Your task to perform on an android device: Open ESPN.com Image 0: 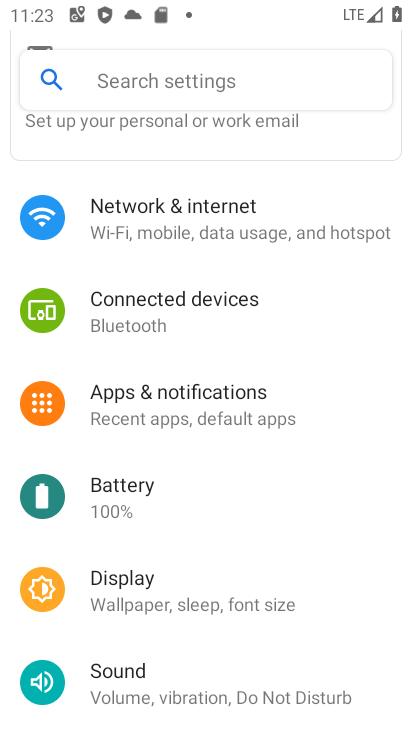
Step 0: press home button
Your task to perform on an android device: Open ESPN.com Image 1: 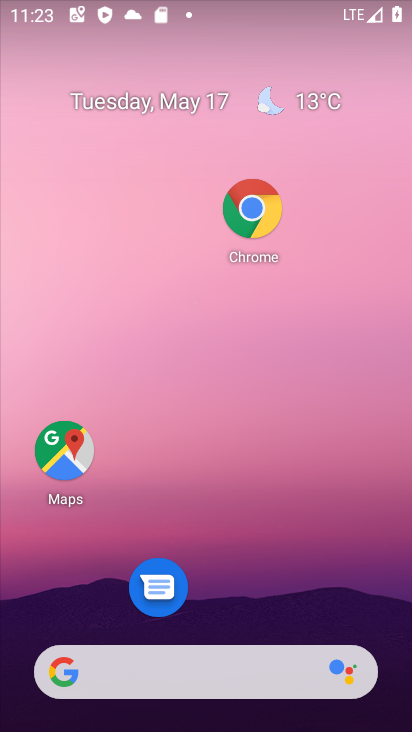
Step 1: click (241, 217)
Your task to perform on an android device: Open ESPN.com Image 2: 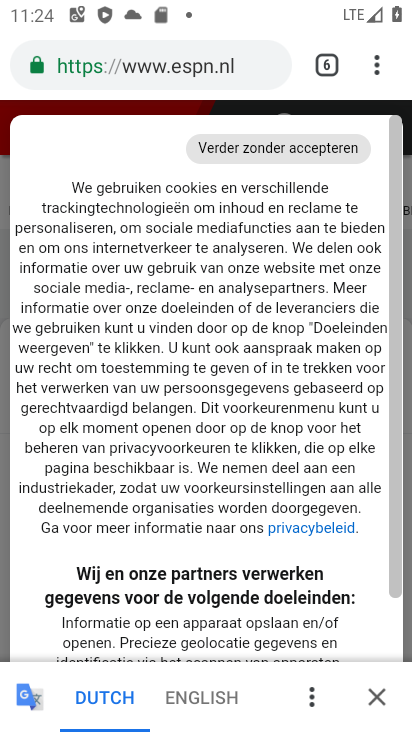
Step 2: task complete